Your task to perform on an android device: turn off location Image 0: 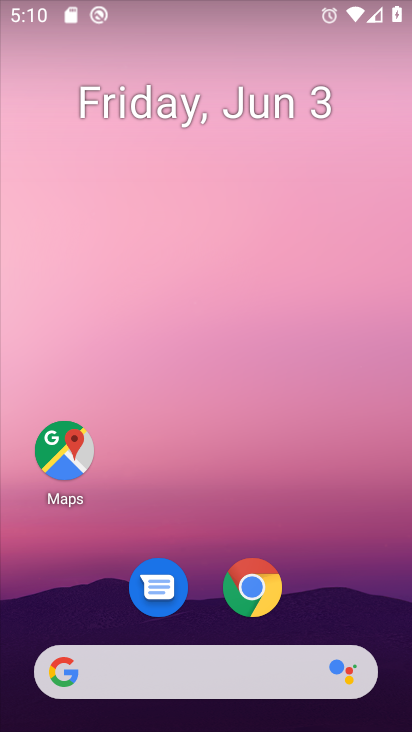
Step 0: drag from (179, 726) to (211, 16)
Your task to perform on an android device: turn off location Image 1: 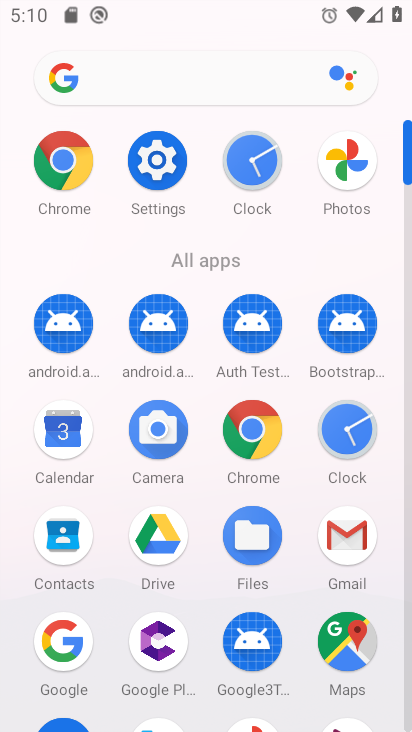
Step 1: click (144, 167)
Your task to perform on an android device: turn off location Image 2: 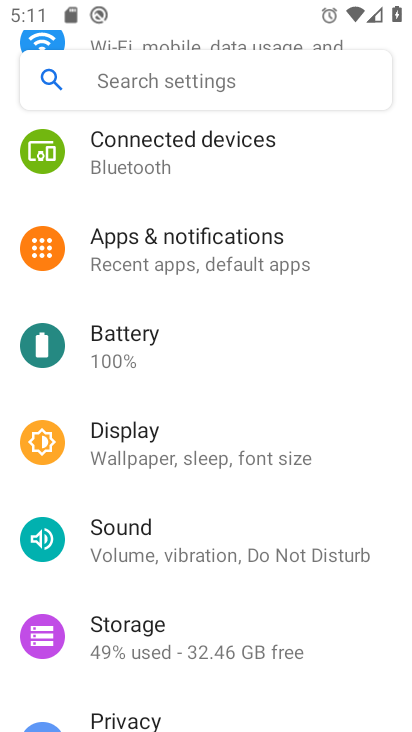
Step 2: drag from (303, 157) to (280, 607)
Your task to perform on an android device: turn off location Image 3: 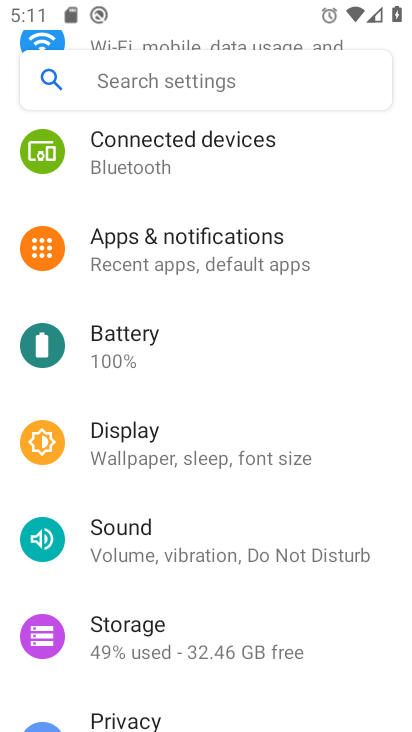
Step 3: drag from (360, 683) to (363, 167)
Your task to perform on an android device: turn off location Image 4: 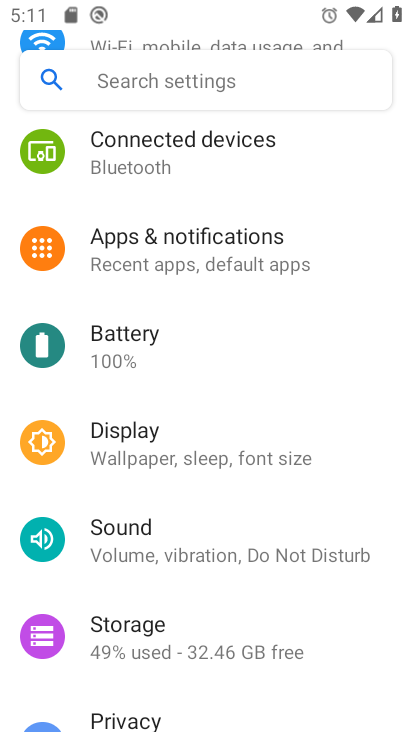
Step 4: drag from (357, 682) to (363, 166)
Your task to perform on an android device: turn off location Image 5: 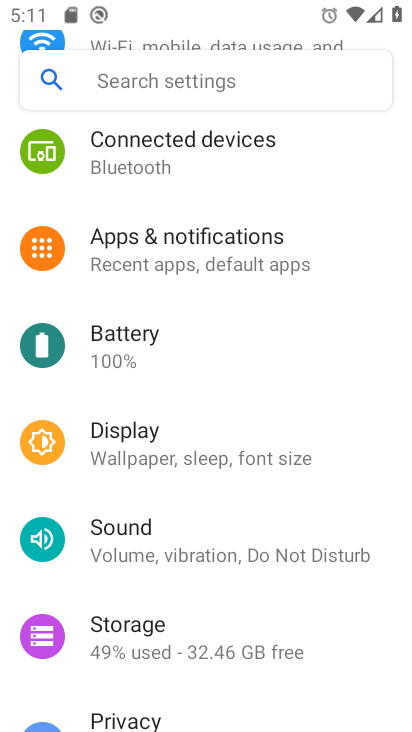
Step 5: drag from (338, 694) to (360, 115)
Your task to perform on an android device: turn off location Image 6: 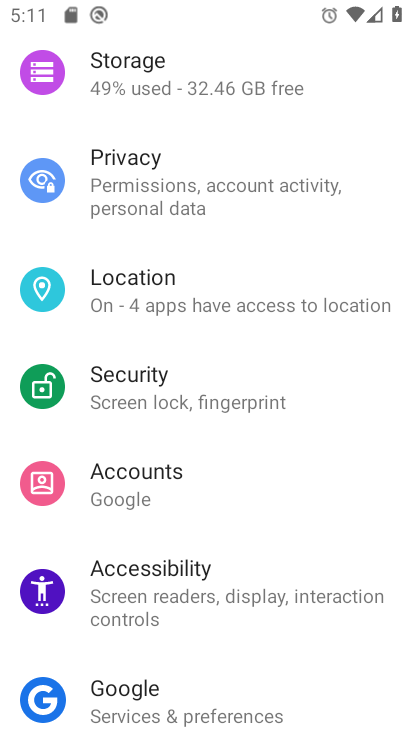
Step 6: click (156, 306)
Your task to perform on an android device: turn off location Image 7: 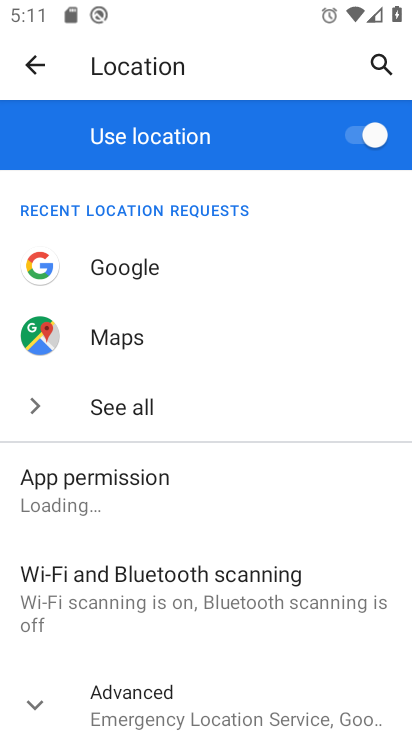
Step 7: click (382, 138)
Your task to perform on an android device: turn off location Image 8: 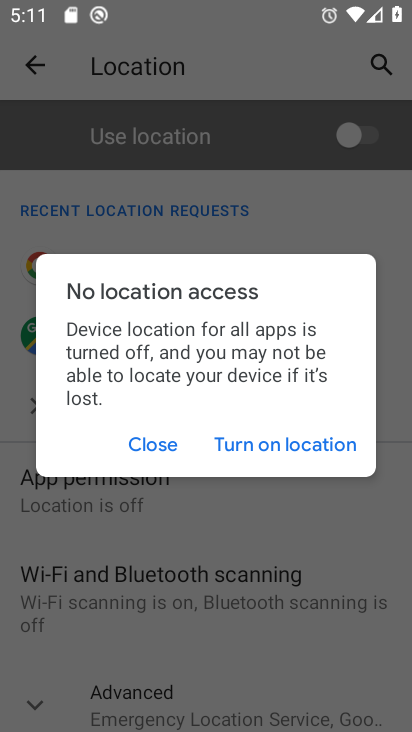
Step 8: click (172, 449)
Your task to perform on an android device: turn off location Image 9: 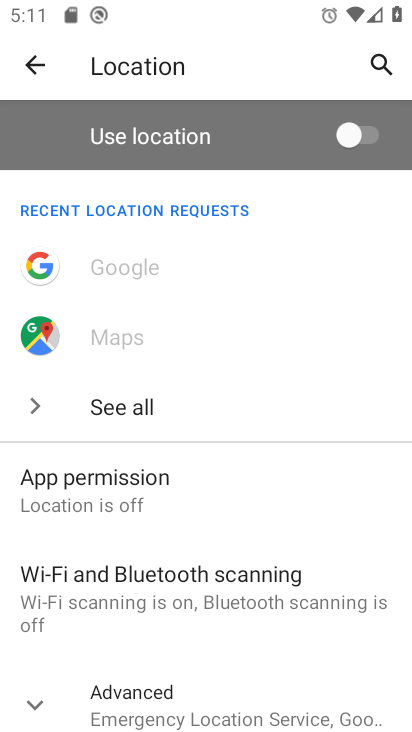
Step 9: task complete